Your task to perform on an android device: What's on my calendar tomorrow? Image 0: 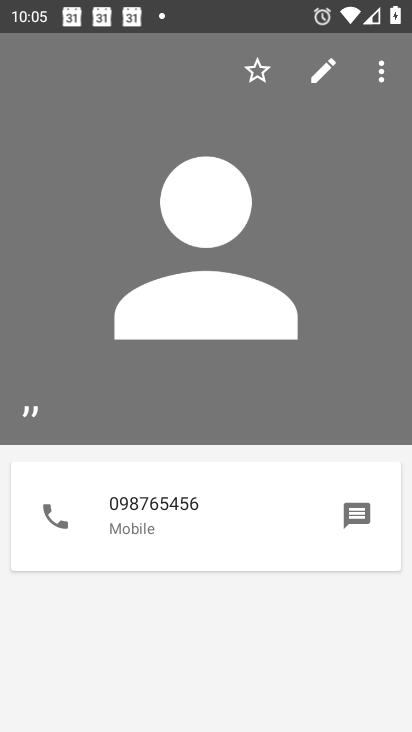
Step 0: press home button
Your task to perform on an android device: What's on my calendar tomorrow? Image 1: 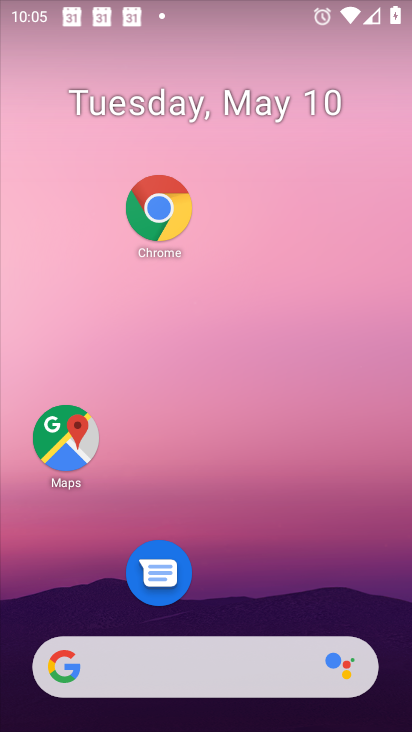
Step 1: drag from (283, 708) to (345, 337)
Your task to perform on an android device: What's on my calendar tomorrow? Image 2: 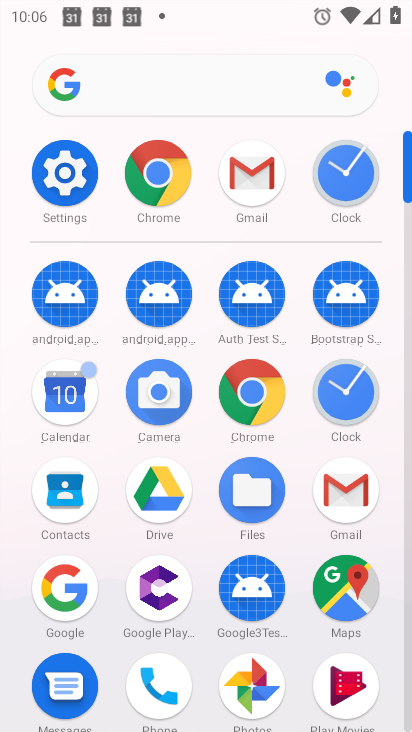
Step 2: click (68, 381)
Your task to perform on an android device: What's on my calendar tomorrow? Image 3: 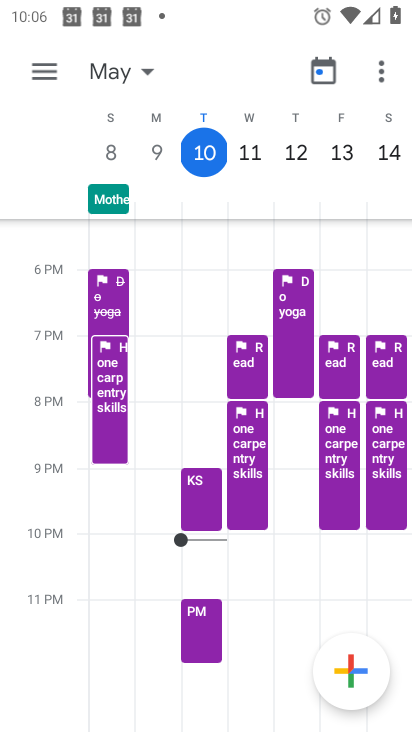
Step 3: click (45, 67)
Your task to perform on an android device: What's on my calendar tomorrow? Image 4: 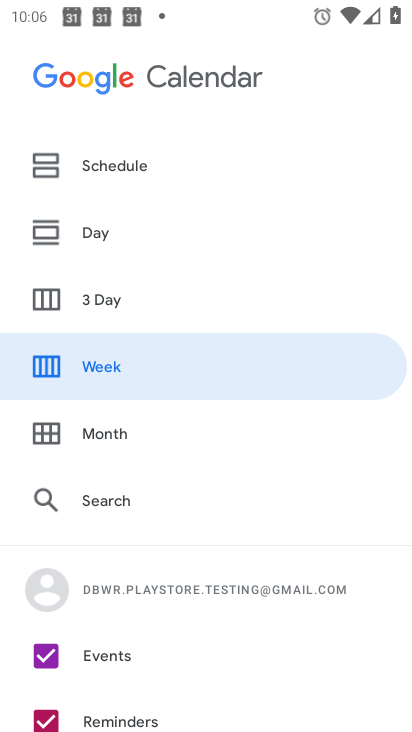
Step 4: click (144, 157)
Your task to perform on an android device: What's on my calendar tomorrow? Image 5: 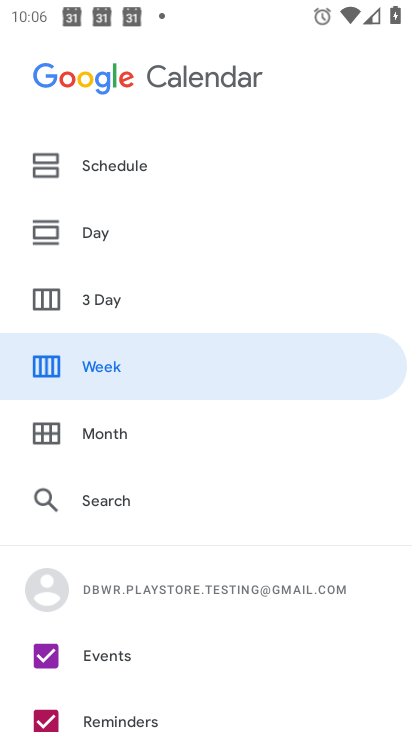
Step 5: click (128, 162)
Your task to perform on an android device: What's on my calendar tomorrow? Image 6: 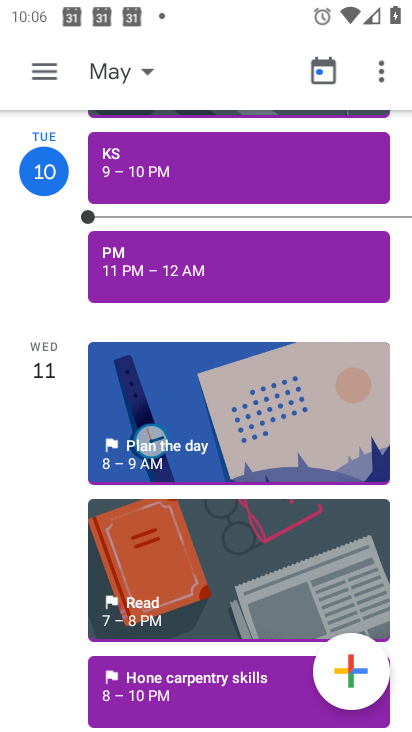
Step 6: task complete